Your task to perform on an android device: change notification settings in the gmail app Image 0: 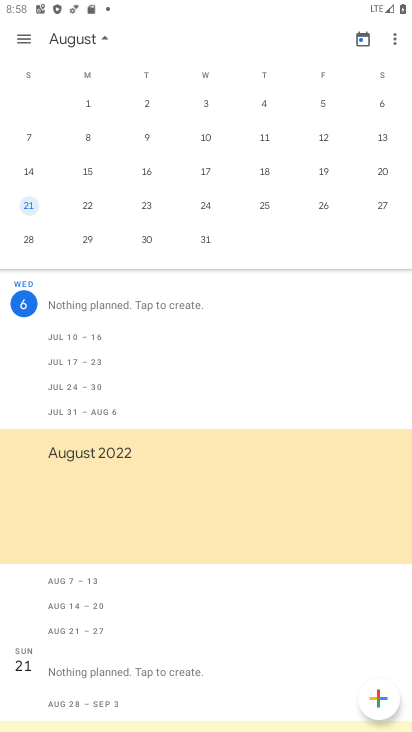
Step 0: press home button
Your task to perform on an android device: change notification settings in the gmail app Image 1: 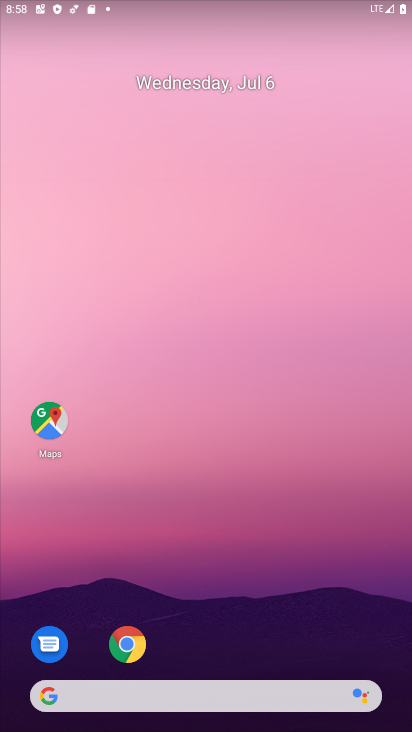
Step 1: drag from (219, 645) to (219, 192)
Your task to perform on an android device: change notification settings in the gmail app Image 2: 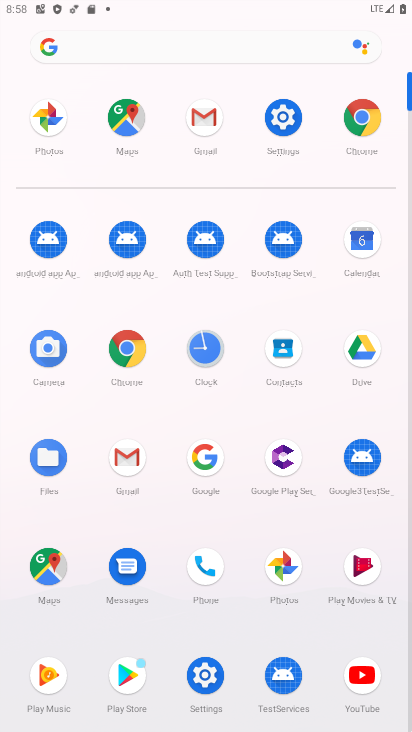
Step 2: click (206, 119)
Your task to perform on an android device: change notification settings in the gmail app Image 3: 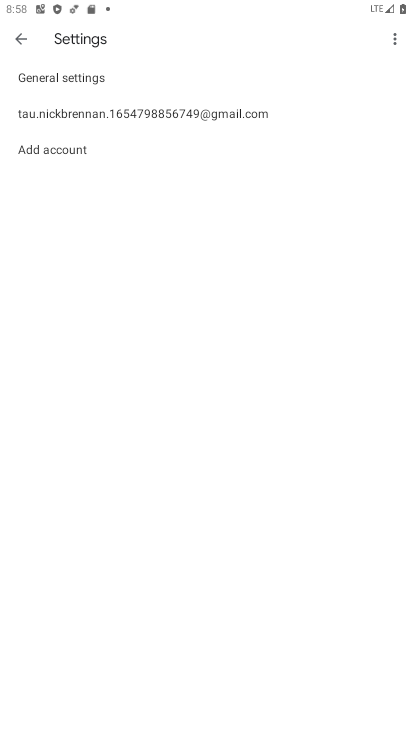
Step 3: click (176, 112)
Your task to perform on an android device: change notification settings in the gmail app Image 4: 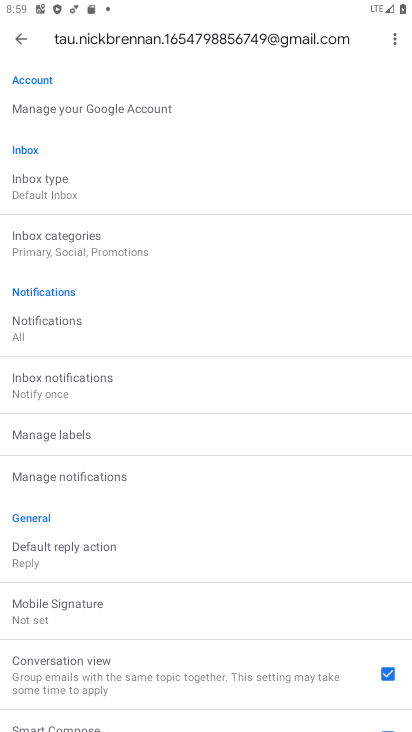
Step 4: click (98, 477)
Your task to perform on an android device: change notification settings in the gmail app Image 5: 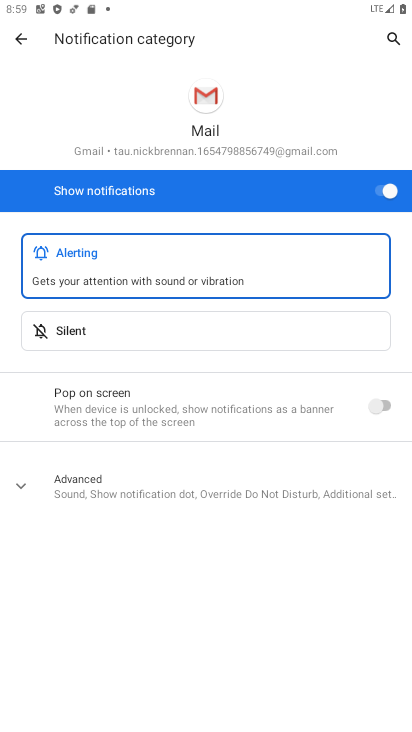
Step 5: click (368, 184)
Your task to perform on an android device: change notification settings in the gmail app Image 6: 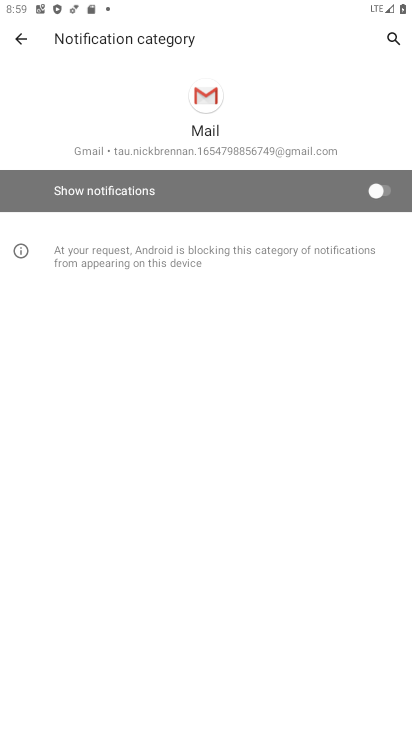
Step 6: task complete